Your task to perform on an android device: all mails in gmail Image 0: 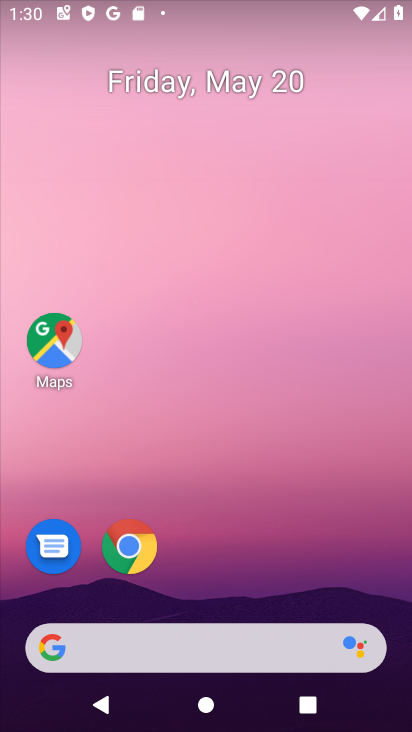
Step 0: drag from (244, 547) to (235, 47)
Your task to perform on an android device: all mails in gmail Image 1: 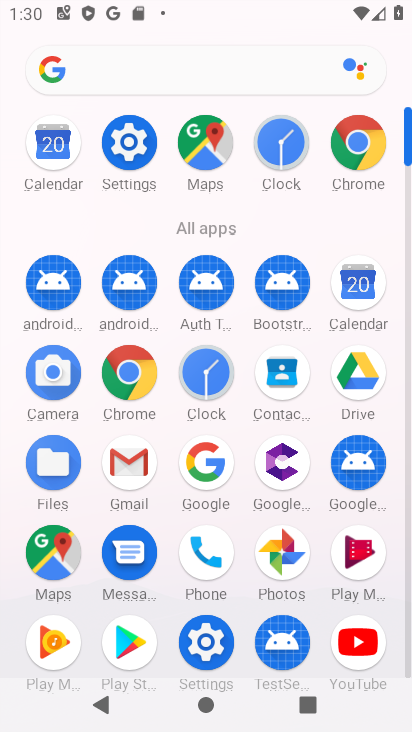
Step 1: click (130, 466)
Your task to perform on an android device: all mails in gmail Image 2: 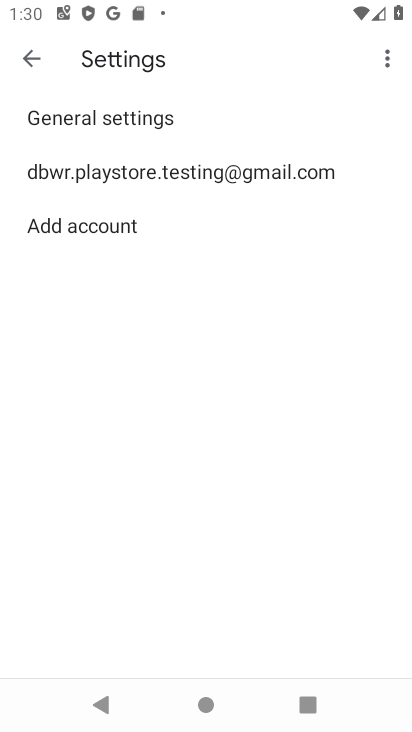
Step 2: press back button
Your task to perform on an android device: all mails in gmail Image 3: 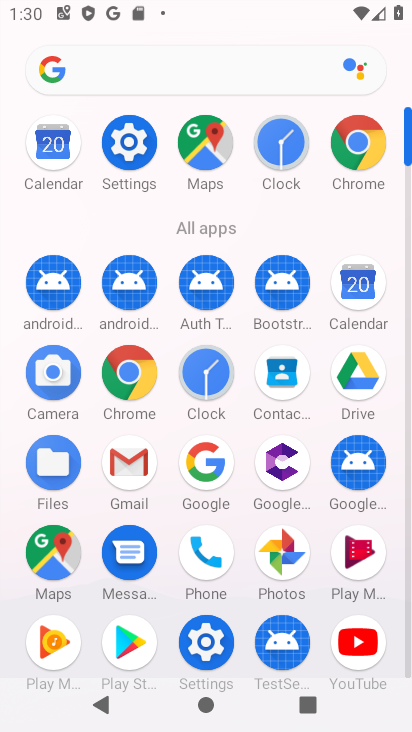
Step 3: click (109, 475)
Your task to perform on an android device: all mails in gmail Image 4: 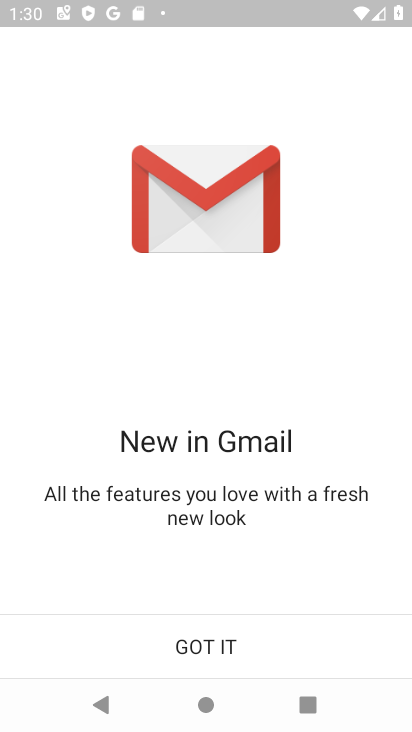
Step 4: click (225, 638)
Your task to perform on an android device: all mails in gmail Image 5: 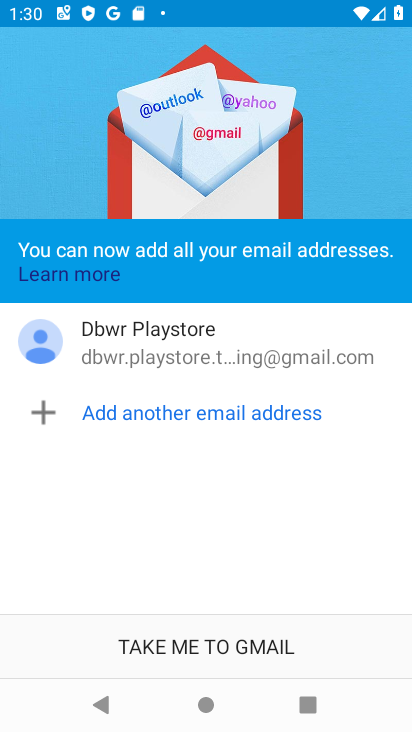
Step 5: click (224, 641)
Your task to perform on an android device: all mails in gmail Image 6: 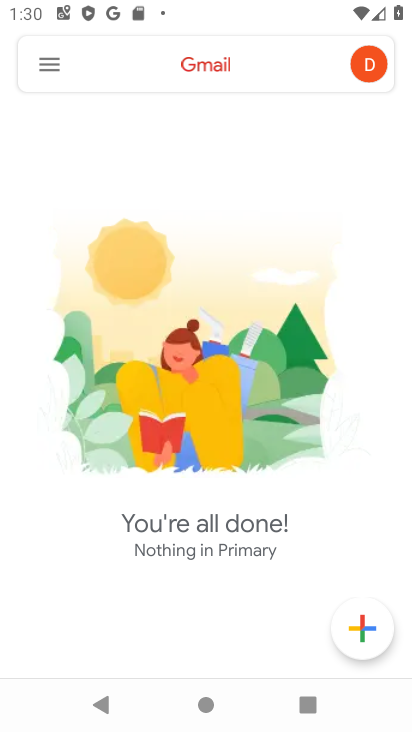
Step 6: click (42, 61)
Your task to perform on an android device: all mails in gmail Image 7: 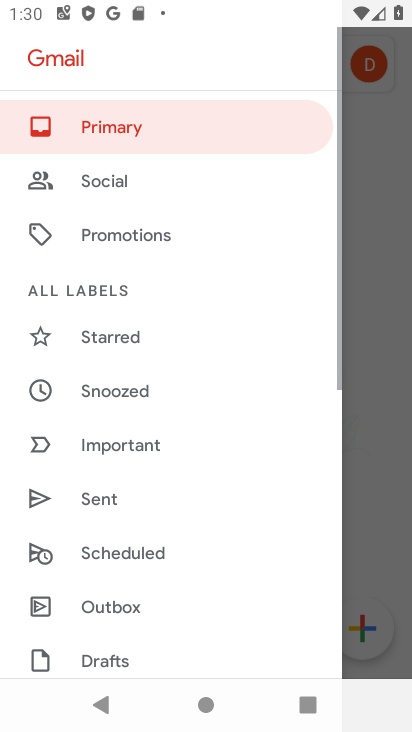
Step 7: drag from (148, 567) to (183, 110)
Your task to perform on an android device: all mails in gmail Image 8: 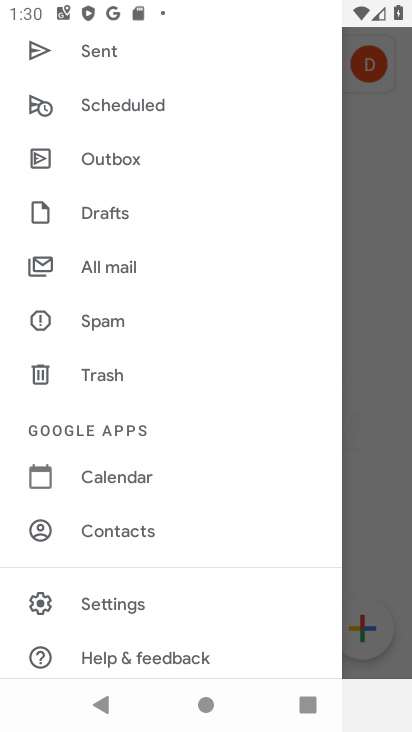
Step 8: click (129, 266)
Your task to perform on an android device: all mails in gmail Image 9: 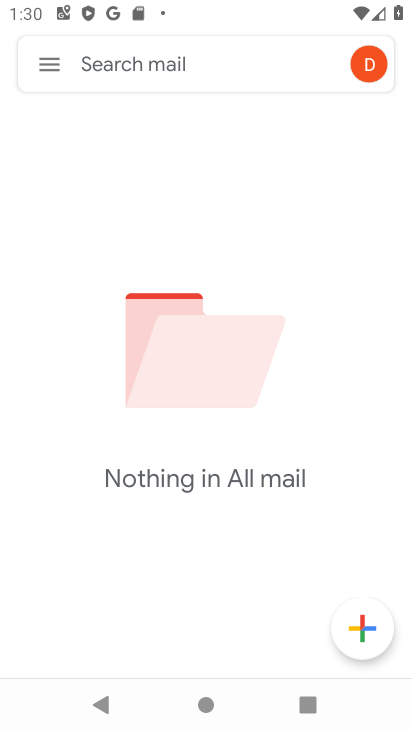
Step 9: task complete